Your task to perform on an android device: check out phone information Image 0: 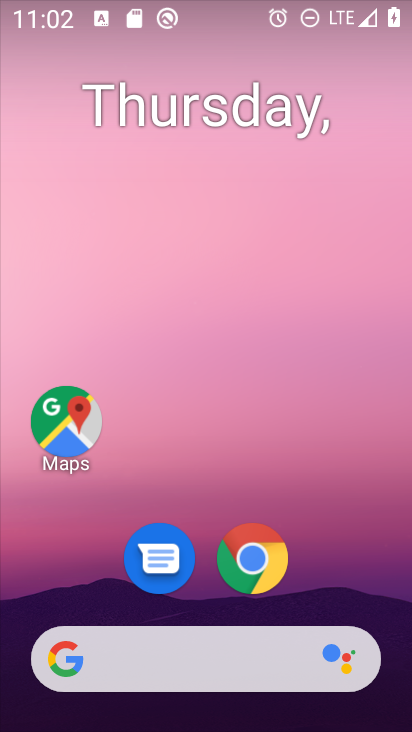
Step 0: drag from (393, 661) to (347, 31)
Your task to perform on an android device: check out phone information Image 1: 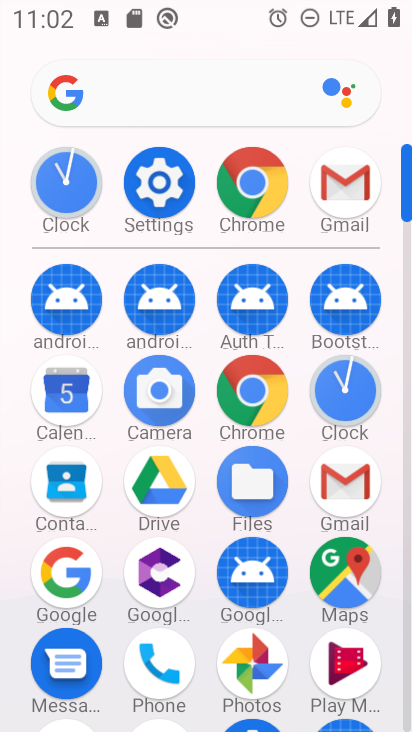
Step 1: click (409, 702)
Your task to perform on an android device: check out phone information Image 2: 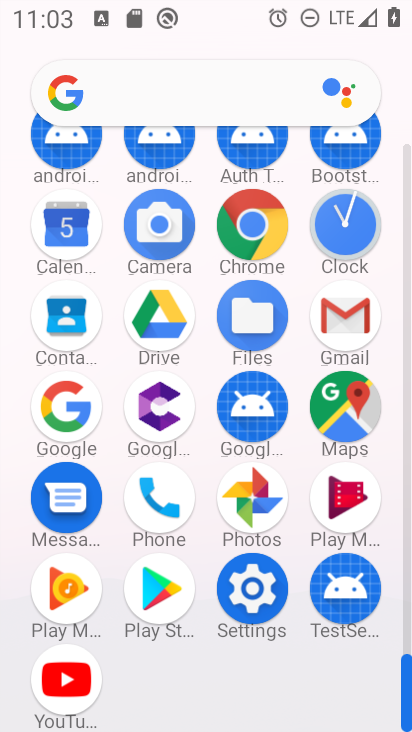
Step 2: click (252, 587)
Your task to perform on an android device: check out phone information Image 3: 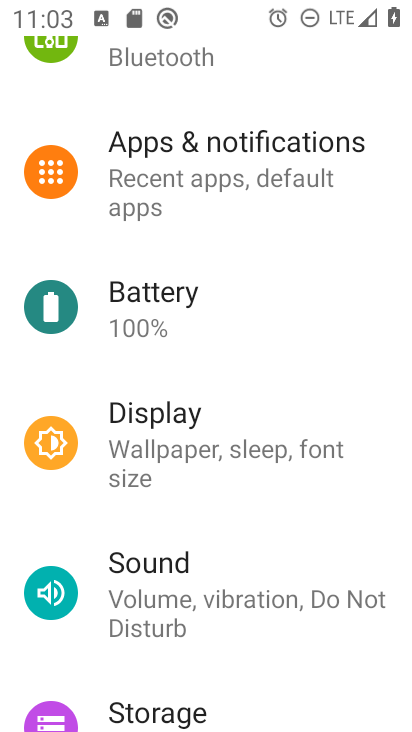
Step 3: drag from (273, 541) to (304, 162)
Your task to perform on an android device: check out phone information Image 4: 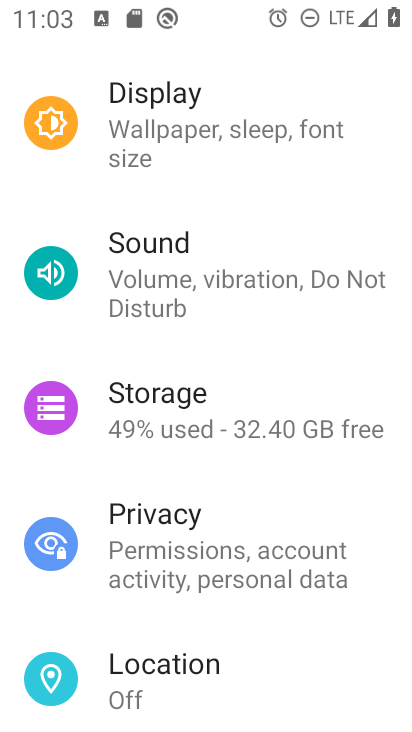
Step 4: drag from (331, 620) to (343, 173)
Your task to perform on an android device: check out phone information Image 5: 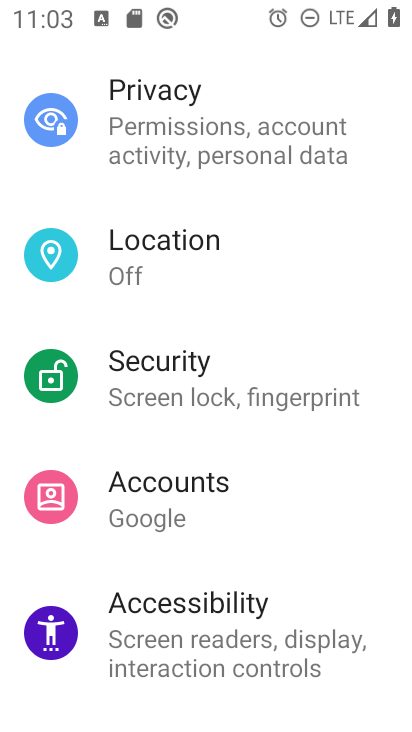
Step 5: drag from (306, 585) to (340, 248)
Your task to perform on an android device: check out phone information Image 6: 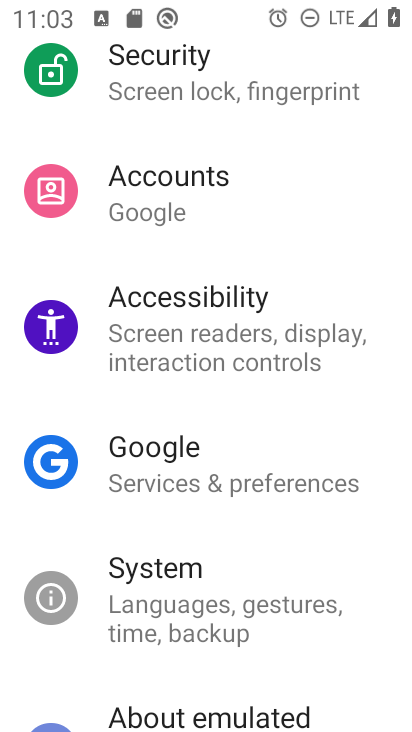
Step 6: drag from (280, 582) to (317, 190)
Your task to perform on an android device: check out phone information Image 7: 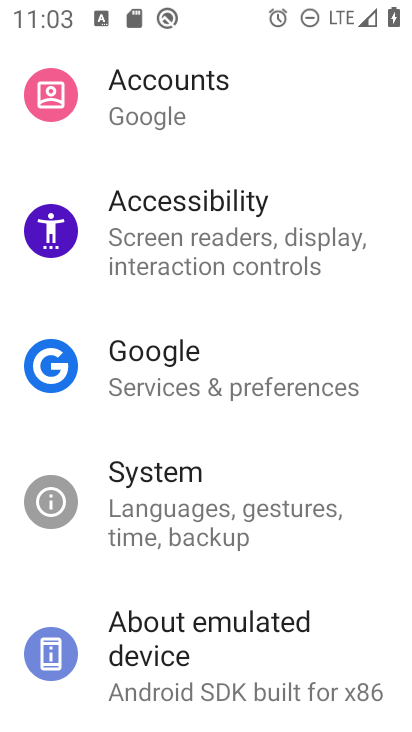
Step 7: click (166, 635)
Your task to perform on an android device: check out phone information Image 8: 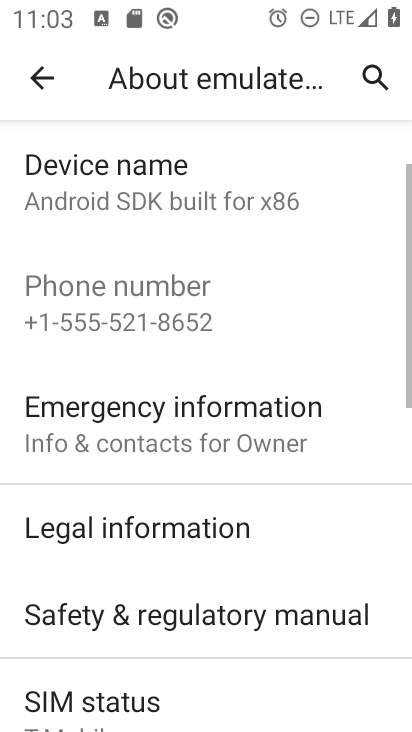
Step 8: task complete